Your task to perform on an android device: Open Youtube and go to the subscriptions tab Image 0: 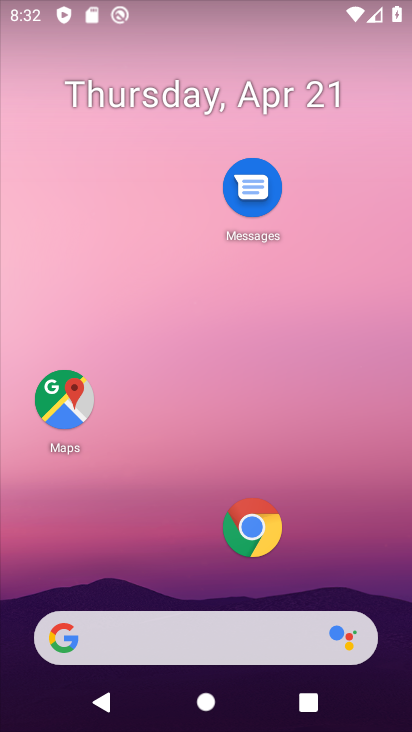
Step 0: drag from (198, 633) to (359, 55)
Your task to perform on an android device: Open Youtube and go to the subscriptions tab Image 1: 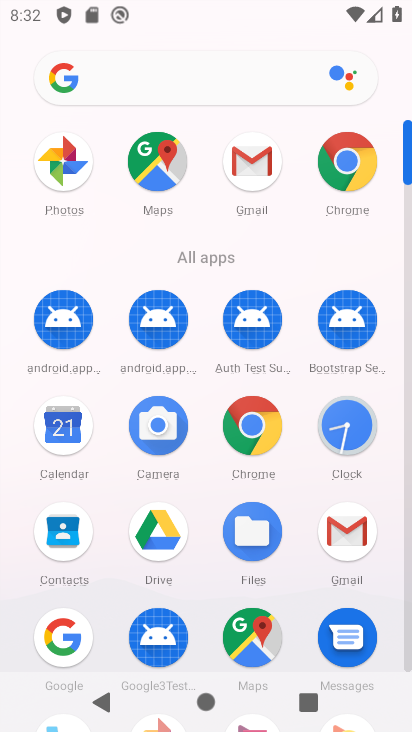
Step 1: drag from (218, 591) to (388, 49)
Your task to perform on an android device: Open Youtube and go to the subscriptions tab Image 2: 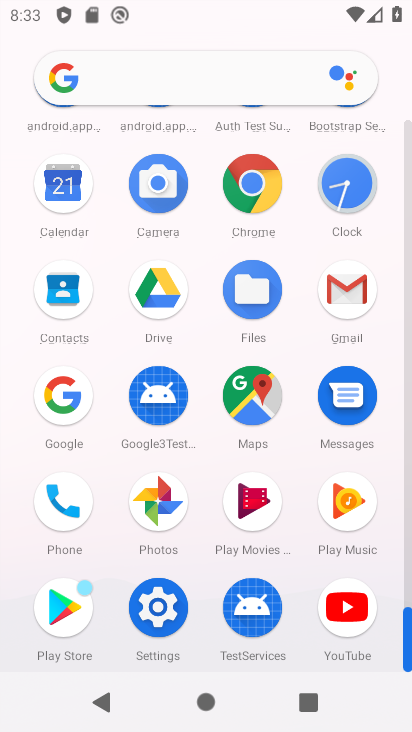
Step 2: click (351, 616)
Your task to perform on an android device: Open Youtube and go to the subscriptions tab Image 3: 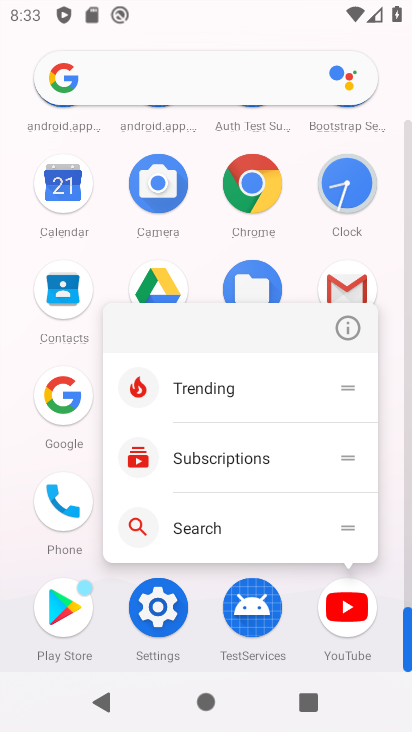
Step 3: click (348, 614)
Your task to perform on an android device: Open Youtube and go to the subscriptions tab Image 4: 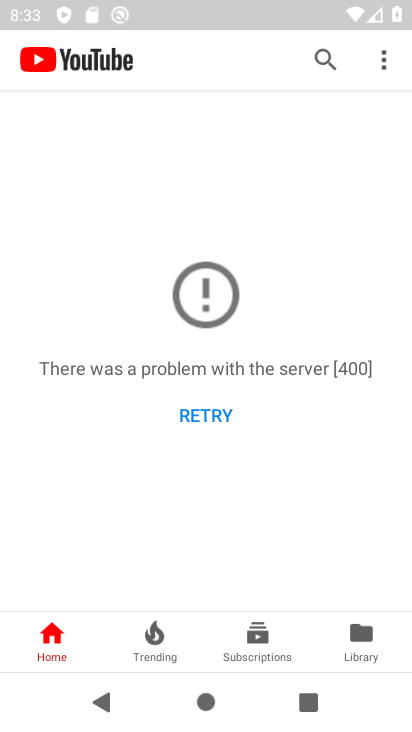
Step 4: click (261, 645)
Your task to perform on an android device: Open Youtube and go to the subscriptions tab Image 5: 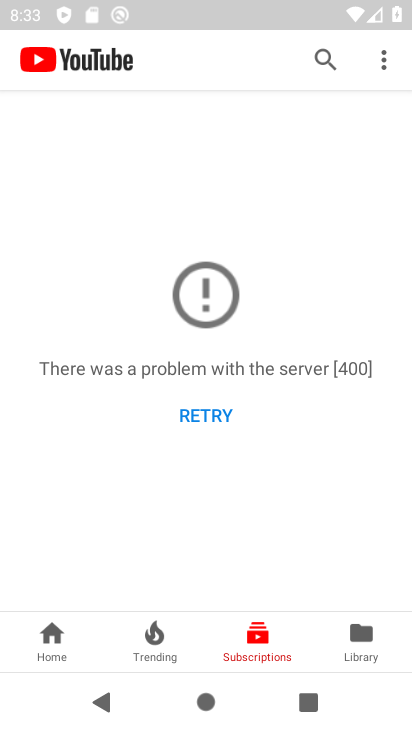
Step 5: click (262, 632)
Your task to perform on an android device: Open Youtube and go to the subscriptions tab Image 6: 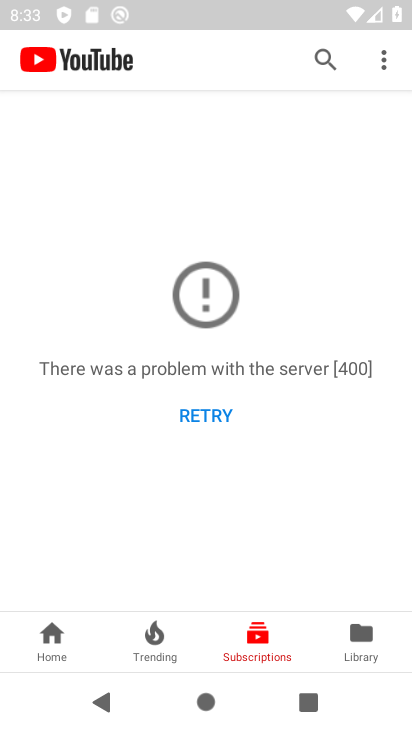
Step 6: click (199, 411)
Your task to perform on an android device: Open Youtube and go to the subscriptions tab Image 7: 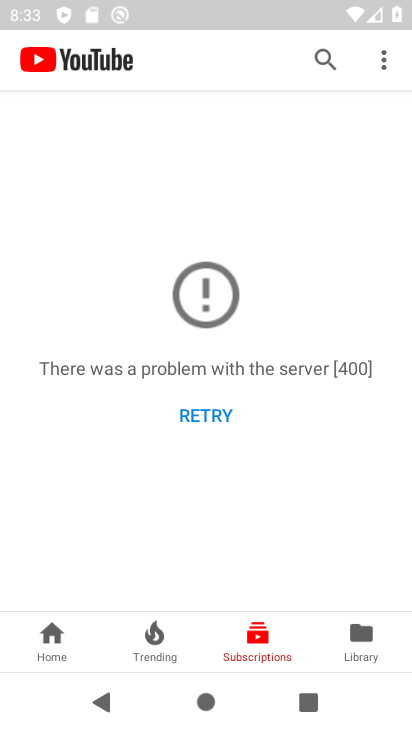
Step 7: task complete